Your task to perform on an android device: What's the weather today? Image 0: 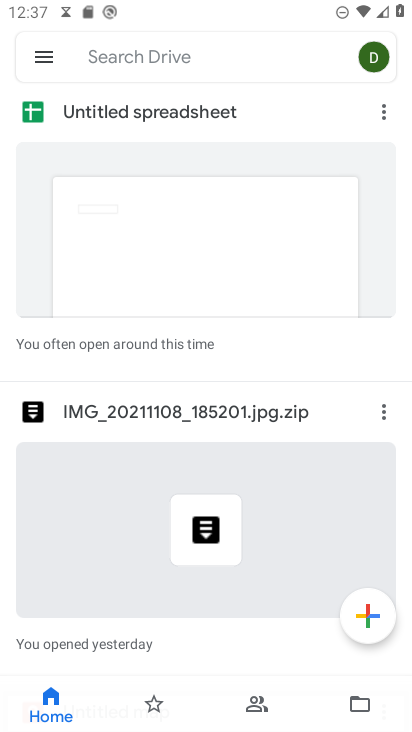
Step 0: press home button
Your task to perform on an android device: What's the weather today? Image 1: 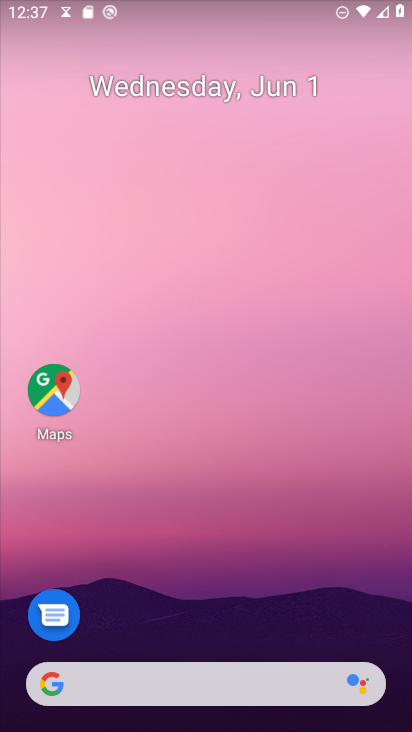
Step 1: drag from (34, 271) to (354, 273)
Your task to perform on an android device: What's the weather today? Image 2: 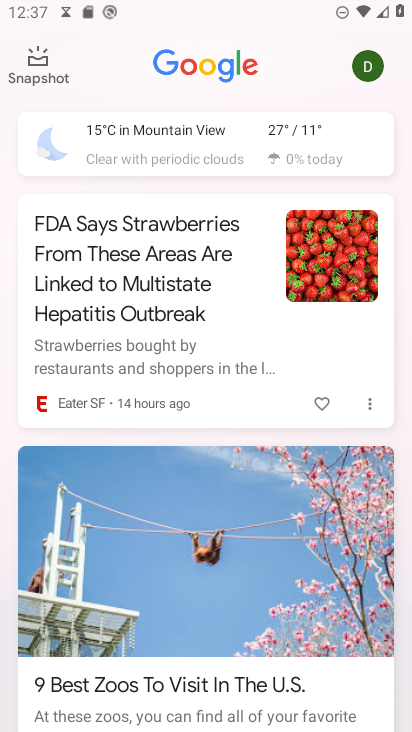
Step 2: click (163, 139)
Your task to perform on an android device: What's the weather today? Image 3: 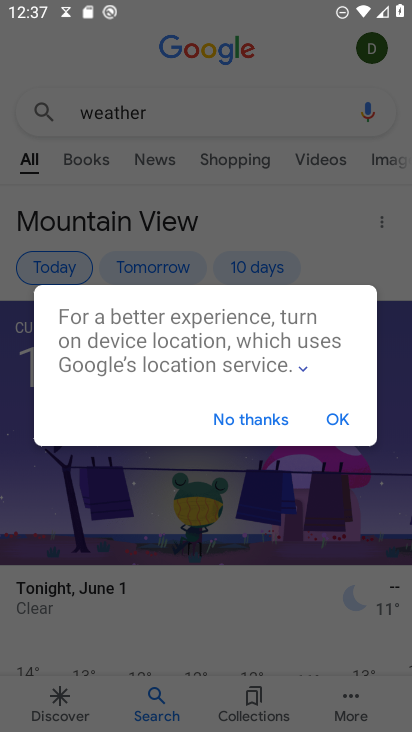
Step 3: task complete